Your task to perform on an android device: Set the phone to "Do not disturb". Image 0: 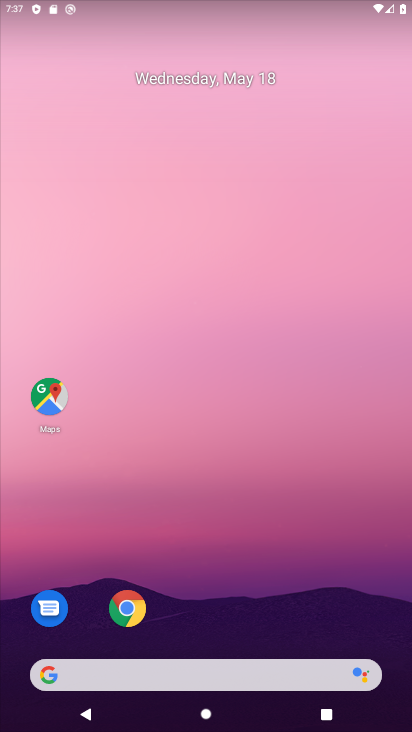
Step 0: drag from (360, 13) to (346, 559)
Your task to perform on an android device: Set the phone to "Do not disturb". Image 1: 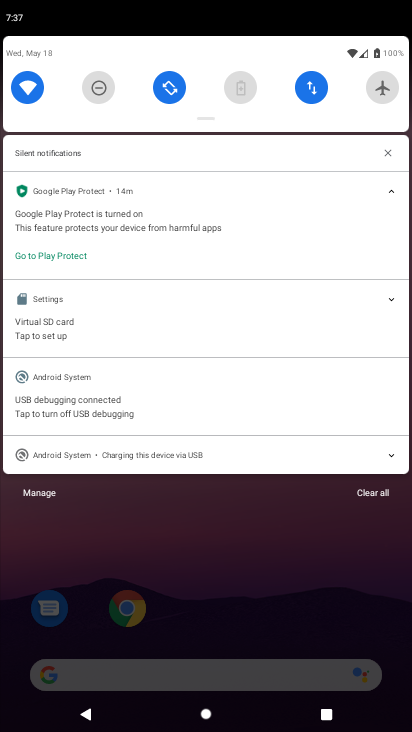
Step 1: click (100, 88)
Your task to perform on an android device: Set the phone to "Do not disturb". Image 2: 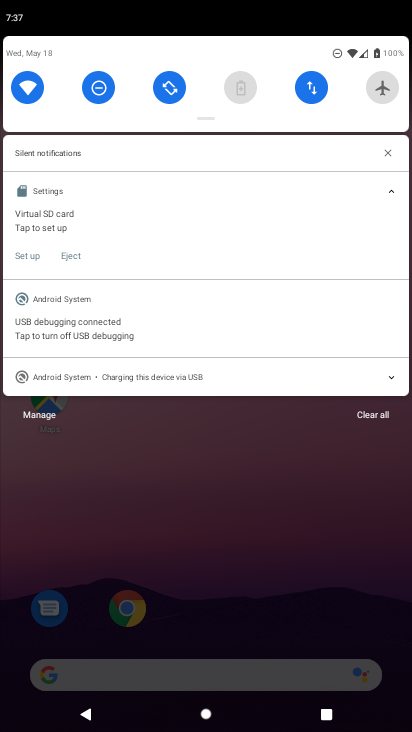
Step 2: task complete